Your task to perform on an android device: Search for seafood restaurants on Google Maps Image 0: 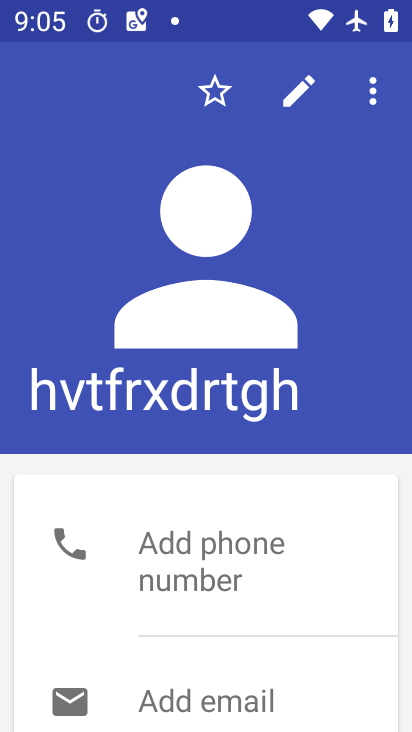
Step 0: press home button
Your task to perform on an android device: Search for seafood restaurants on Google Maps Image 1: 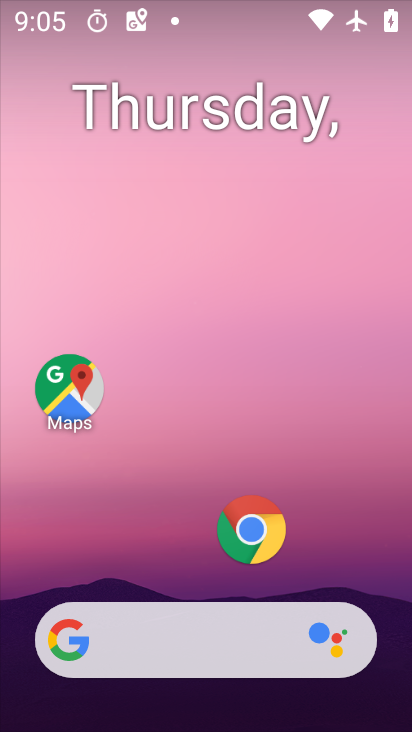
Step 1: click (70, 385)
Your task to perform on an android device: Search for seafood restaurants on Google Maps Image 2: 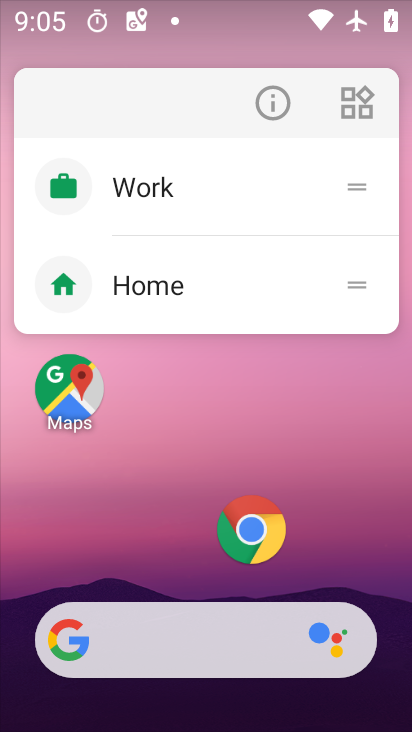
Step 2: click (70, 385)
Your task to perform on an android device: Search for seafood restaurants on Google Maps Image 3: 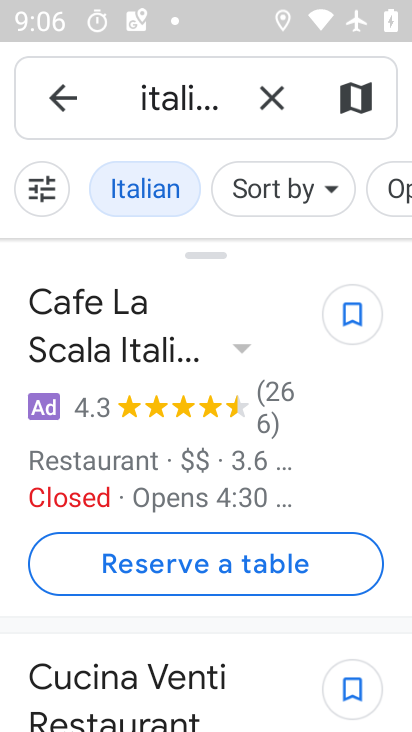
Step 3: click (263, 101)
Your task to perform on an android device: Search for seafood restaurants on Google Maps Image 4: 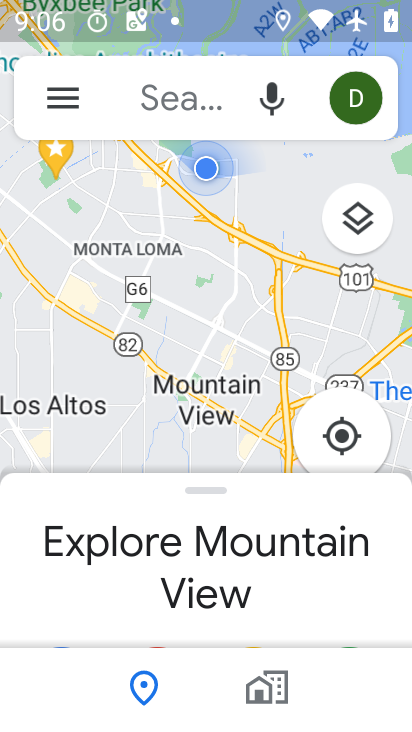
Step 4: click (169, 97)
Your task to perform on an android device: Search for seafood restaurants on Google Maps Image 5: 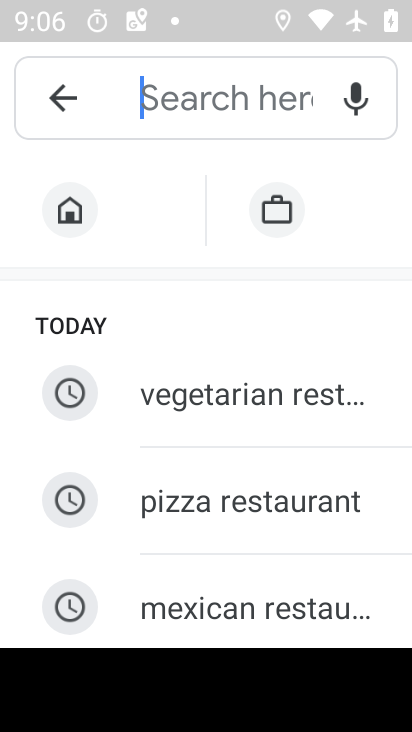
Step 5: drag from (219, 592) to (251, 129)
Your task to perform on an android device: Search for seafood restaurants on Google Maps Image 6: 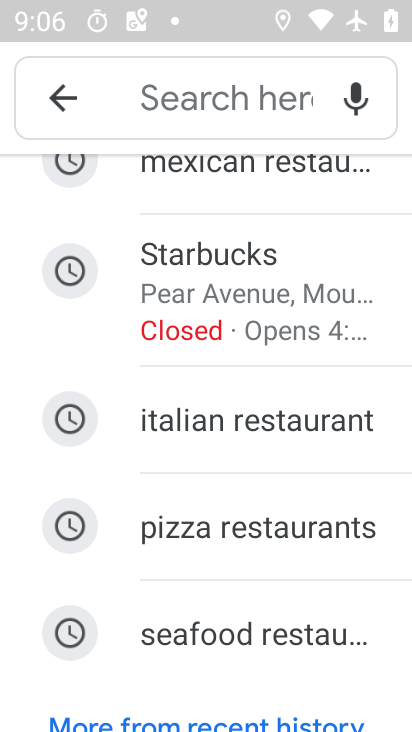
Step 6: click (215, 637)
Your task to perform on an android device: Search for seafood restaurants on Google Maps Image 7: 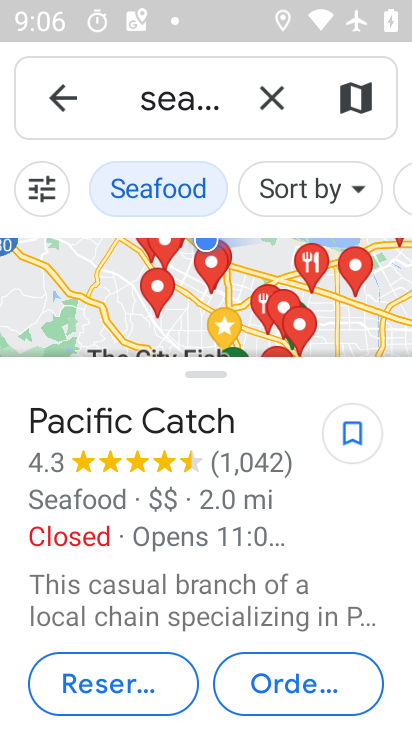
Step 7: task complete